Your task to perform on an android device: Go to internet settings Image 0: 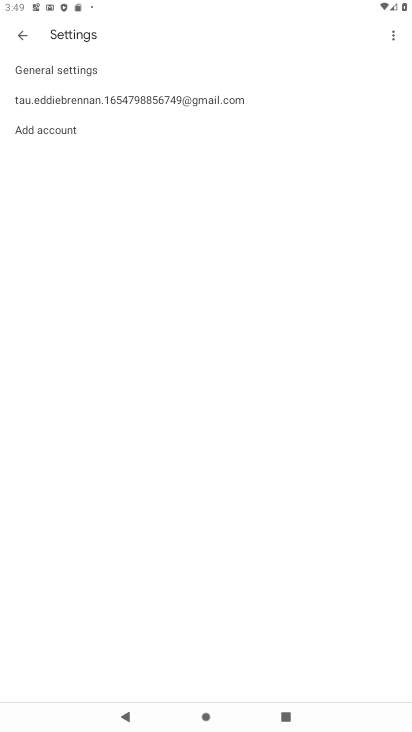
Step 0: press home button
Your task to perform on an android device: Go to internet settings Image 1: 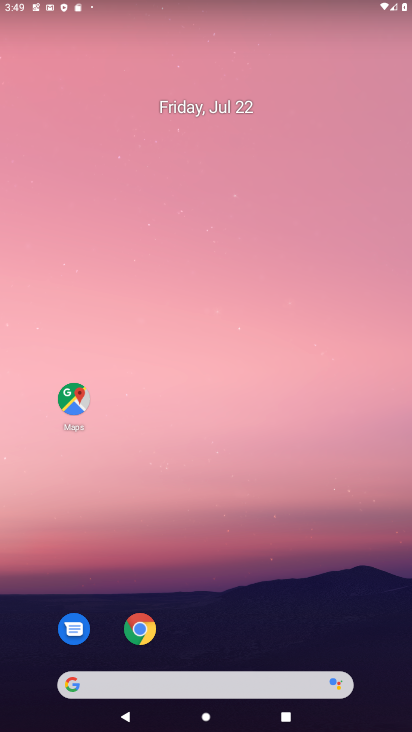
Step 1: drag from (285, 595) to (231, 101)
Your task to perform on an android device: Go to internet settings Image 2: 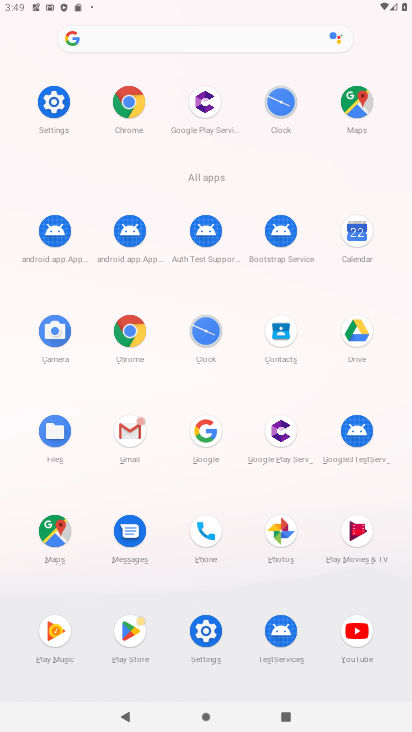
Step 2: click (56, 94)
Your task to perform on an android device: Go to internet settings Image 3: 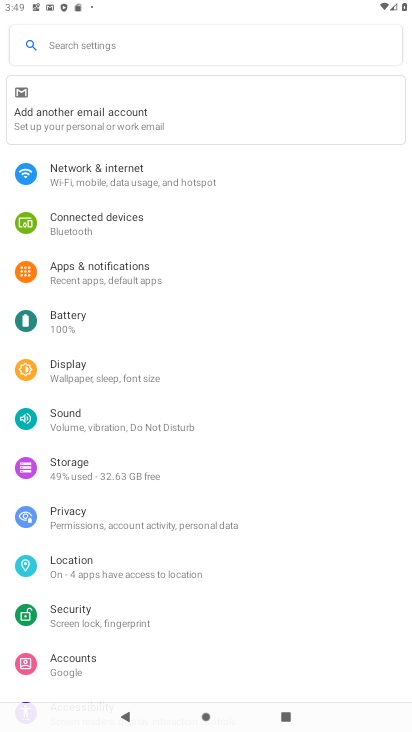
Step 3: click (150, 173)
Your task to perform on an android device: Go to internet settings Image 4: 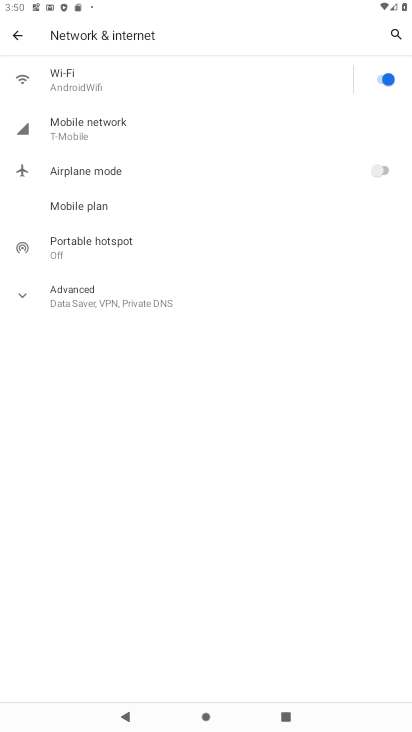
Step 4: task complete